Your task to perform on an android device: delete the emails in spam in the gmail app Image 0: 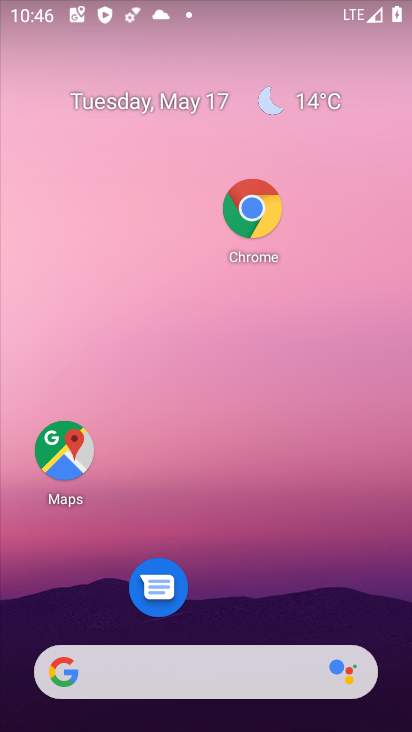
Step 0: drag from (307, 615) to (279, 117)
Your task to perform on an android device: delete the emails in spam in the gmail app Image 1: 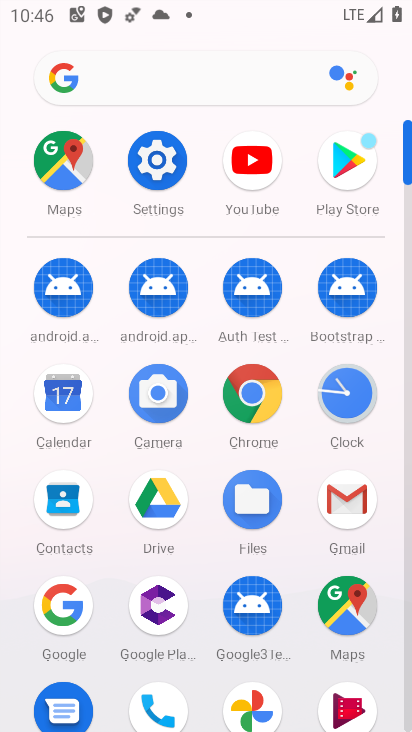
Step 1: click (359, 500)
Your task to perform on an android device: delete the emails in spam in the gmail app Image 2: 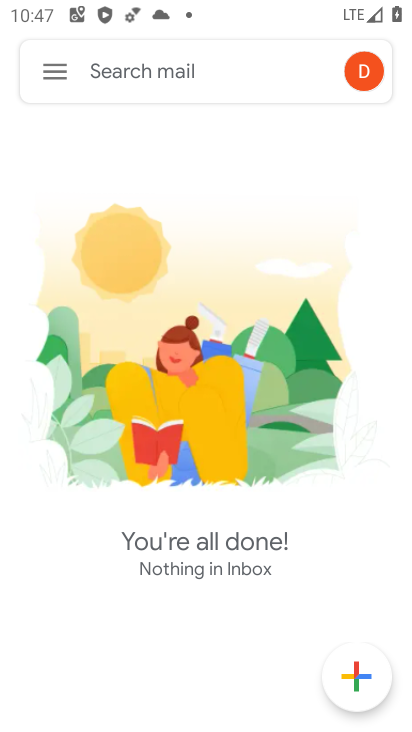
Step 2: click (54, 70)
Your task to perform on an android device: delete the emails in spam in the gmail app Image 3: 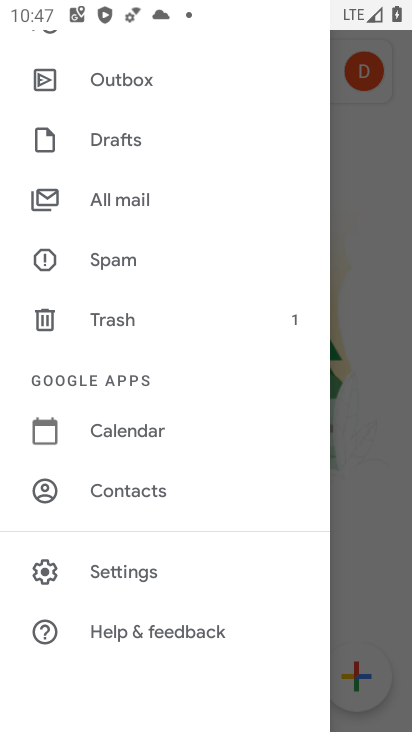
Step 3: click (133, 256)
Your task to perform on an android device: delete the emails in spam in the gmail app Image 4: 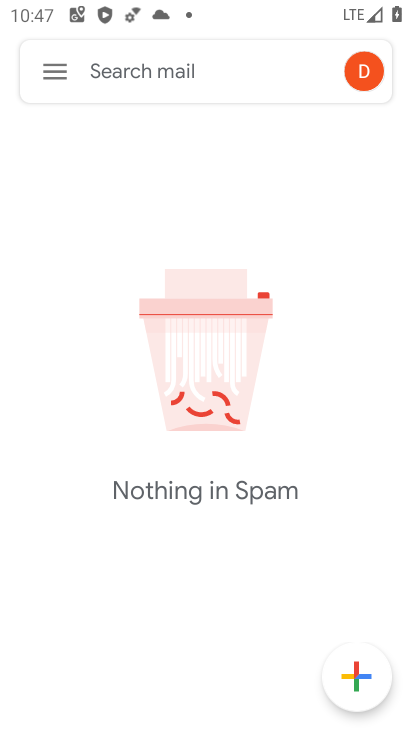
Step 4: task complete